Your task to perform on an android device: see creations saved in the google photos Image 0: 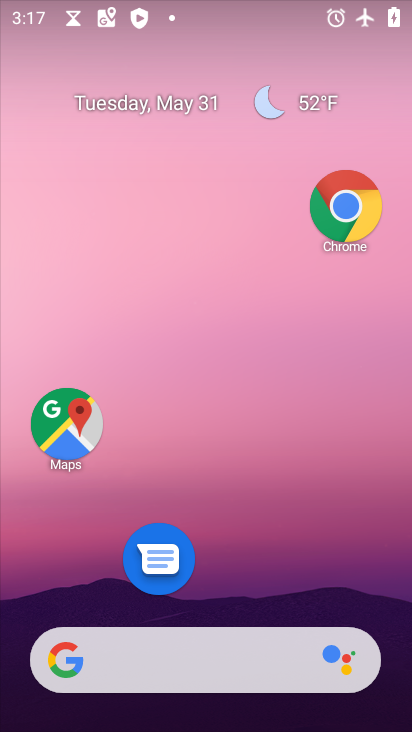
Step 0: drag from (236, 579) to (244, 207)
Your task to perform on an android device: see creations saved in the google photos Image 1: 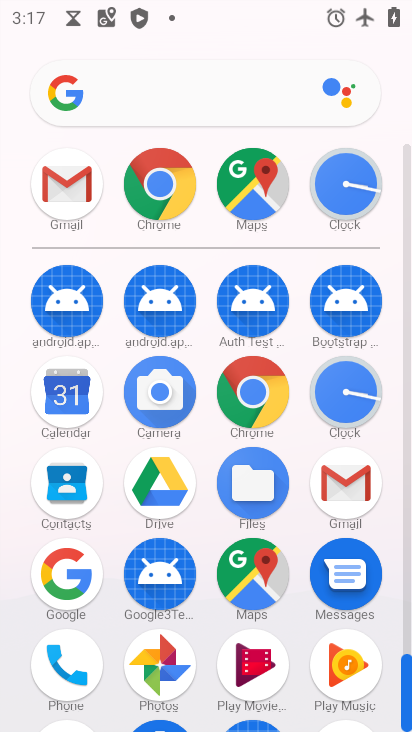
Step 1: click (165, 672)
Your task to perform on an android device: see creations saved in the google photos Image 2: 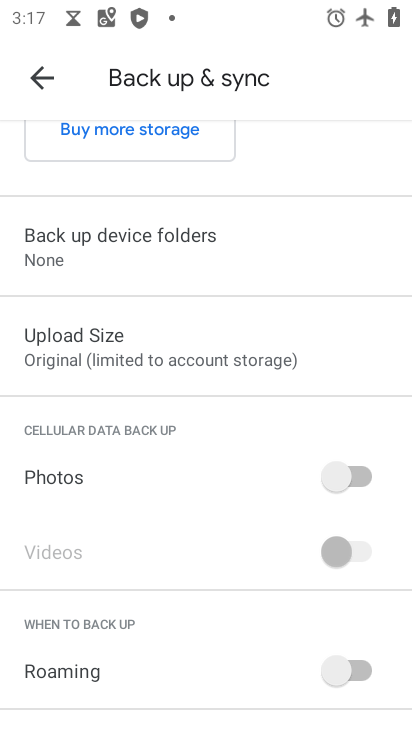
Step 2: press back button
Your task to perform on an android device: see creations saved in the google photos Image 3: 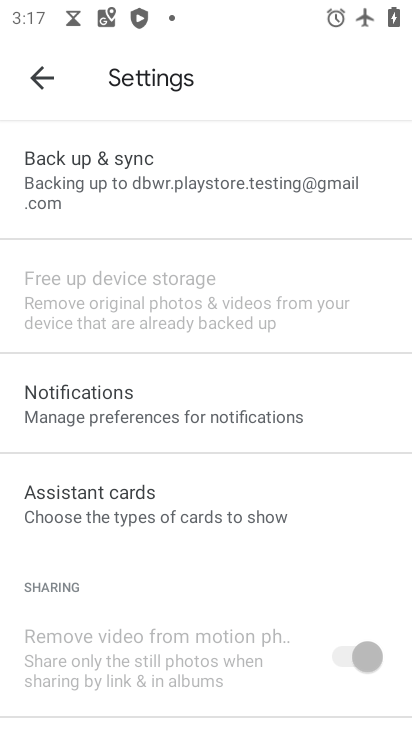
Step 3: press back button
Your task to perform on an android device: see creations saved in the google photos Image 4: 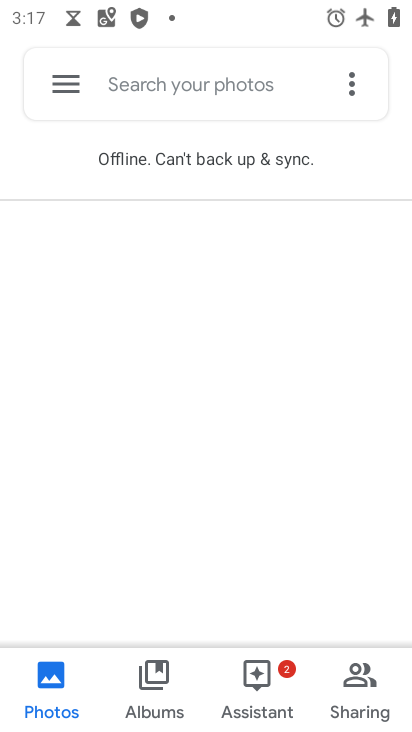
Step 4: click (255, 98)
Your task to perform on an android device: see creations saved in the google photos Image 5: 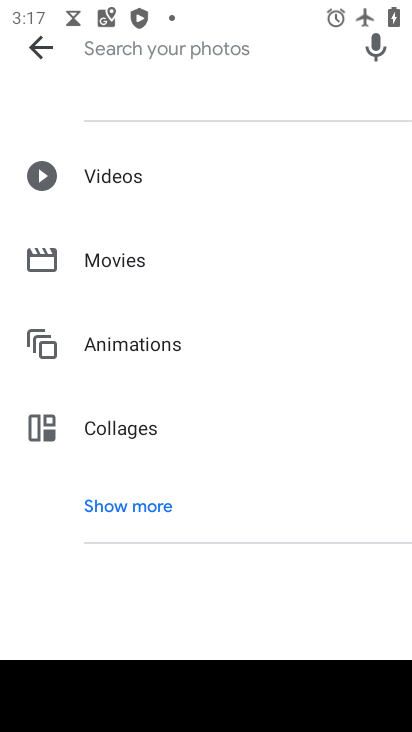
Step 5: click (150, 516)
Your task to perform on an android device: see creations saved in the google photos Image 6: 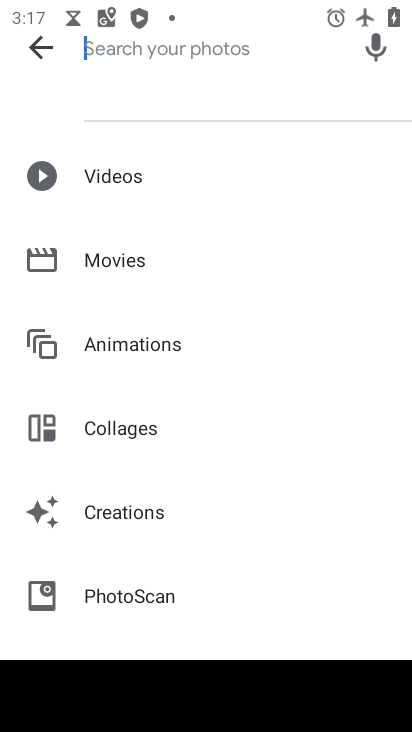
Step 6: click (150, 516)
Your task to perform on an android device: see creations saved in the google photos Image 7: 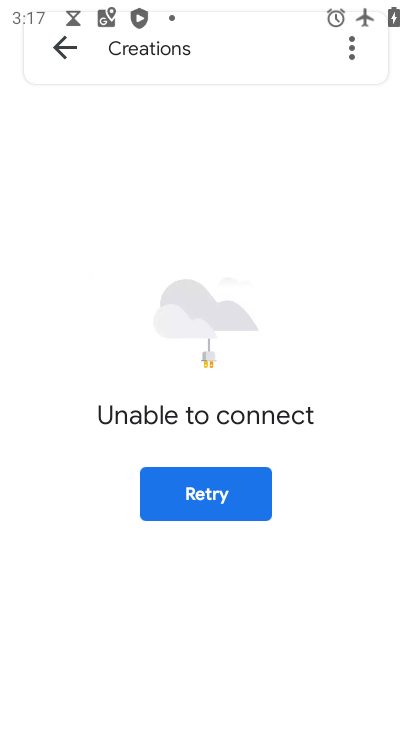
Step 7: task complete